Your task to perform on an android device: Show me recent news Image 0: 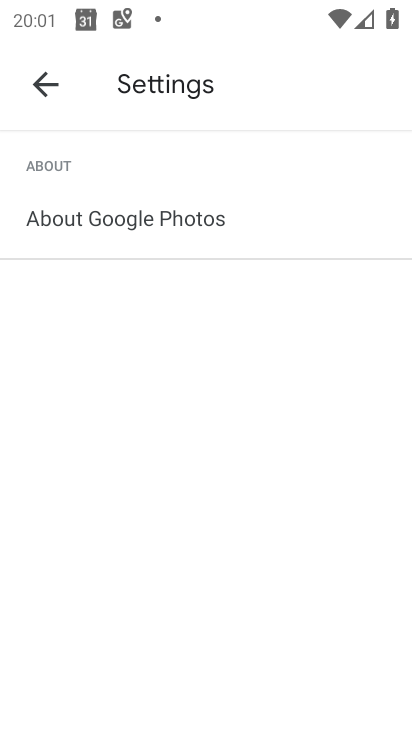
Step 0: task complete